Your task to perform on an android device: Go to eBay Image 0: 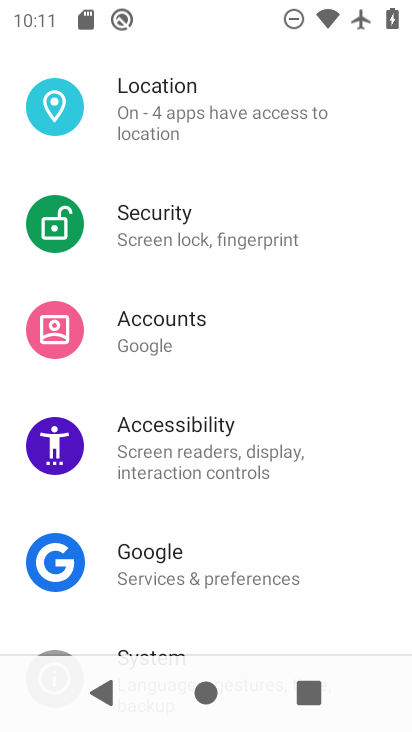
Step 0: press home button
Your task to perform on an android device: Go to eBay Image 1: 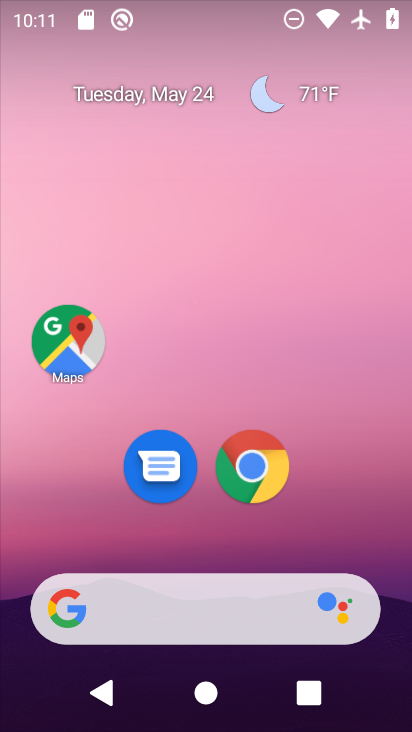
Step 1: click (248, 483)
Your task to perform on an android device: Go to eBay Image 2: 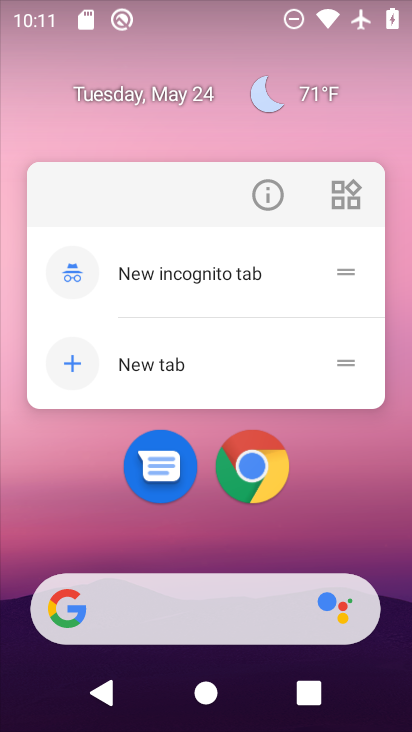
Step 2: click (254, 461)
Your task to perform on an android device: Go to eBay Image 3: 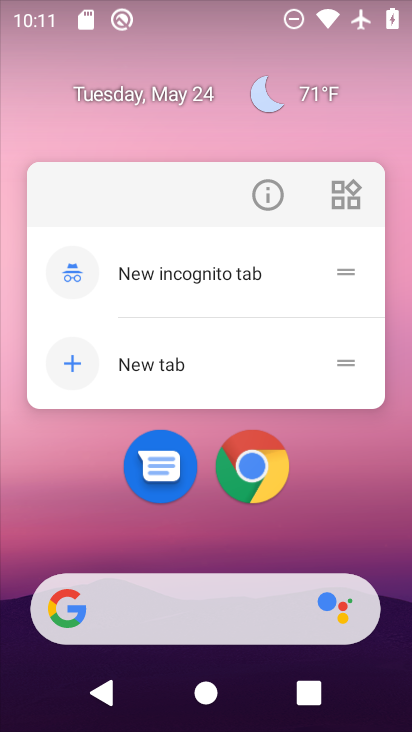
Step 3: click (246, 479)
Your task to perform on an android device: Go to eBay Image 4: 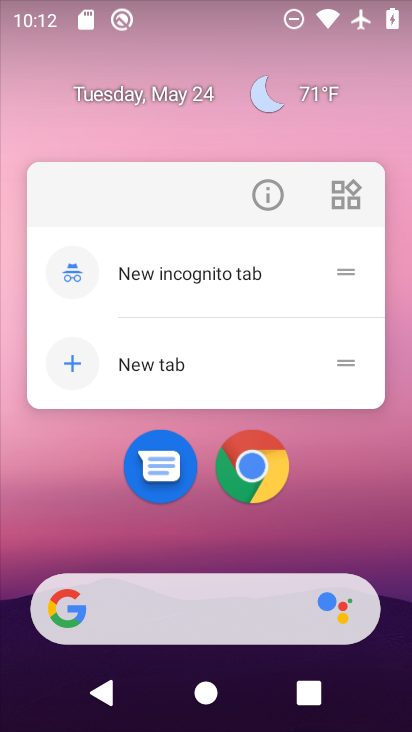
Step 4: click (247, 480)
Your task to perform on an android device: Go to eBay Image 5: 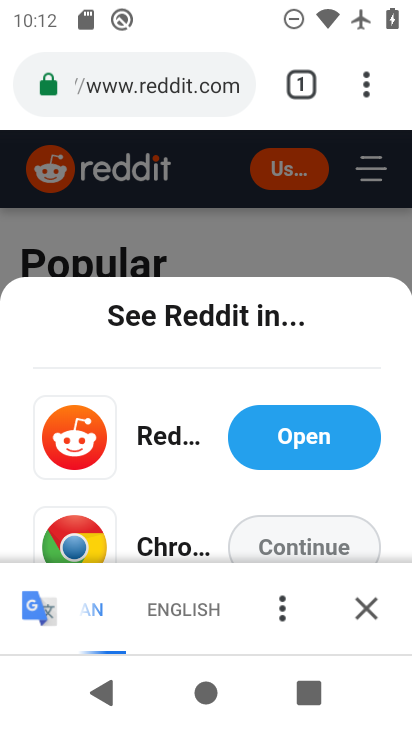
Step 5: click (120, 79)
Your task to perform on an android device: Go to eBay Image 6: 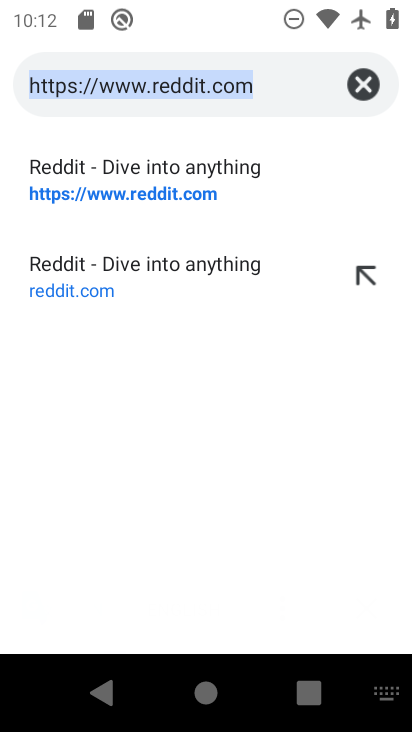
Step 6: type "eBay"
Your task to perform on an android device: Go to eBay Image 7: 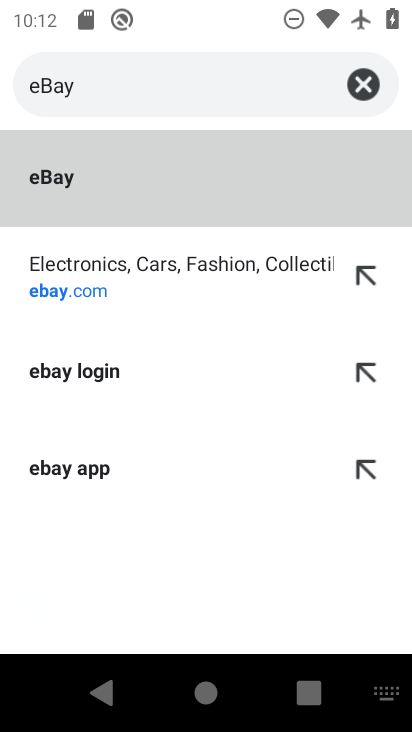
Step 7: click (71, 186)
Your task to perform on an android device: Go to eBay Image 8: 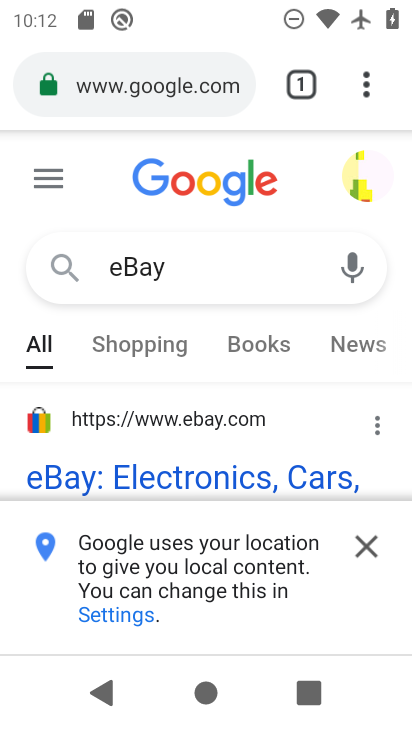
Step 8: click (365, 548)
Your task to perform on an android device: Go to eBay Image 9: 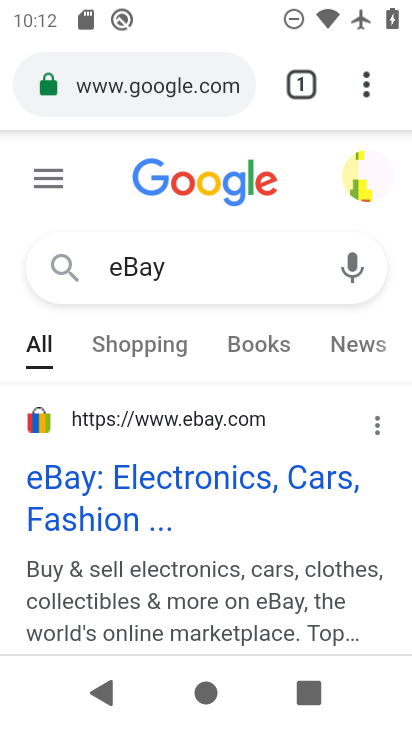
Step 9: task complete